Your task to perform on an android device: Open Google Image 0: 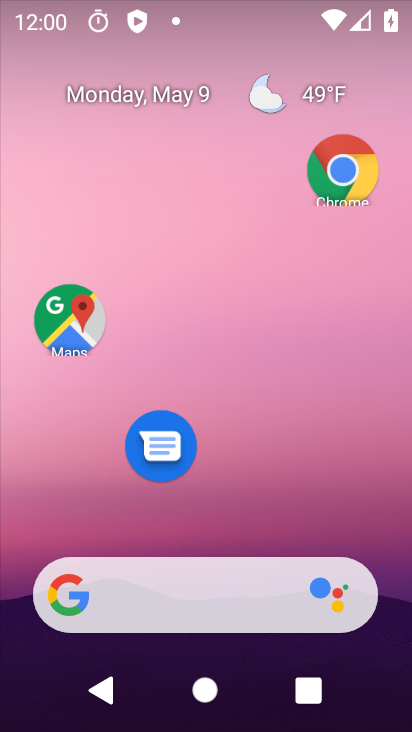
Step 0: drag from (302, 469) to (315, 236)
Your task to perform on an android device: Open Google Image 1: 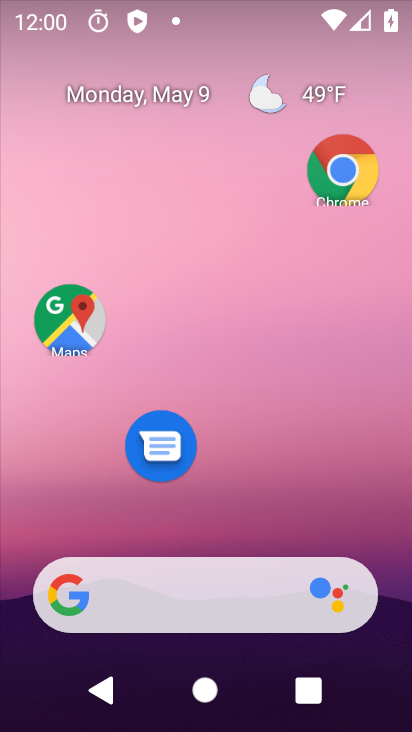
Step 1: drag from (251, 511) to (343, 62)
Your task to perform on an android device: Open Google Image 2: 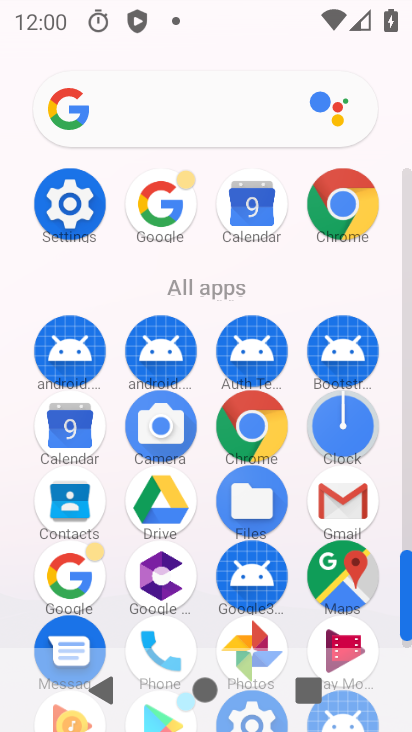
Step 2: click (166, 215)
Your task to perform on an android device: Open Google Image 3: 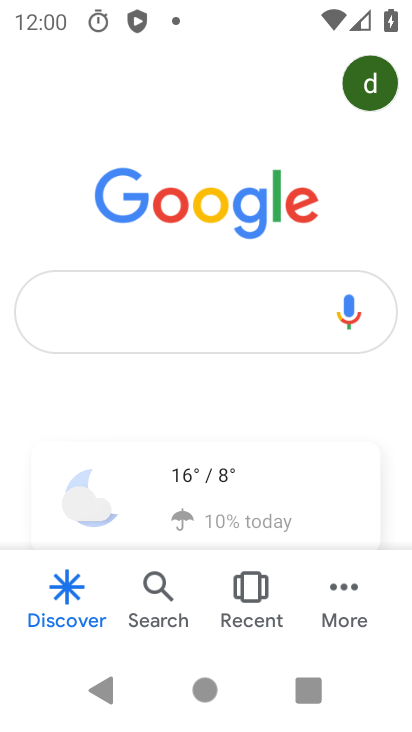
Step 3: task complete